Your task to perform on an android device: turn on bluetooth scan Image 0: 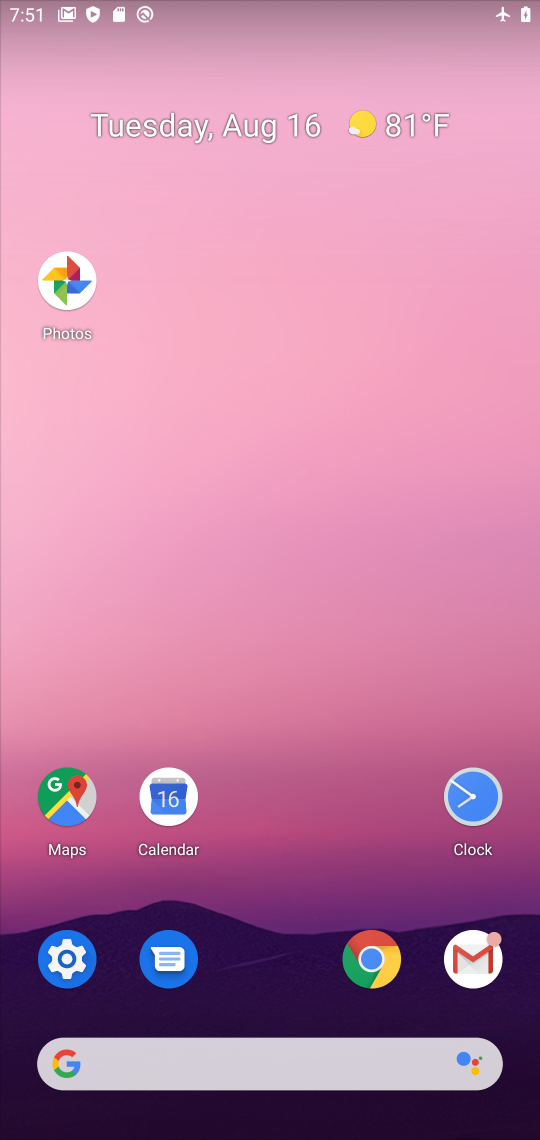
Step 0: click (65, 963)
Your task to perform on an android device: turn on bluetooth scan Image 1: 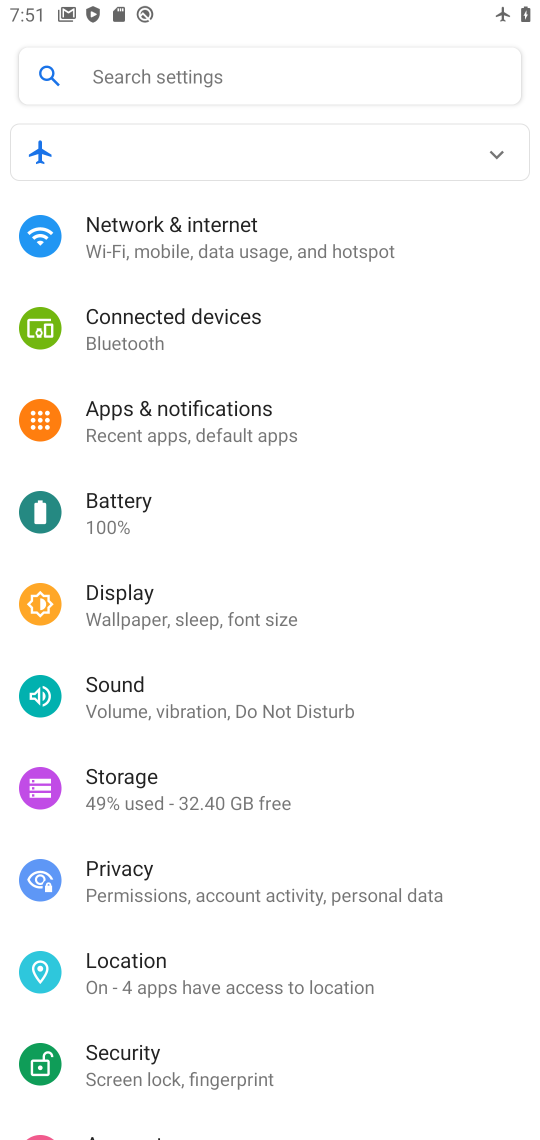
Step 1: click (126, 969)
Your task to perform on an android device: turn on bluetooth scan Image 2: 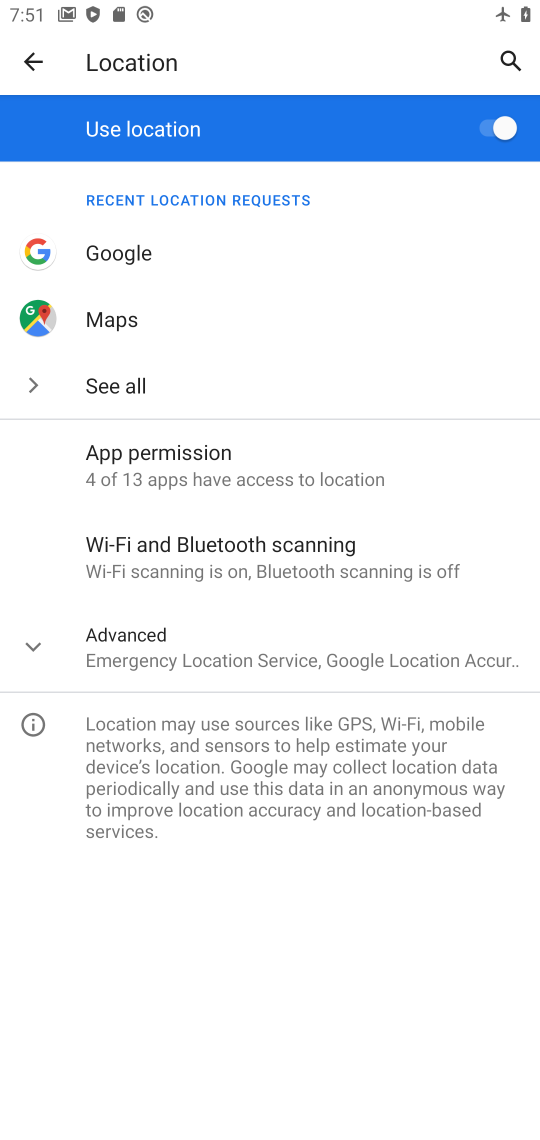
Step 2: click (183, 534)
Your task to perform on an android device: turn on bluetooth scan Image 3: 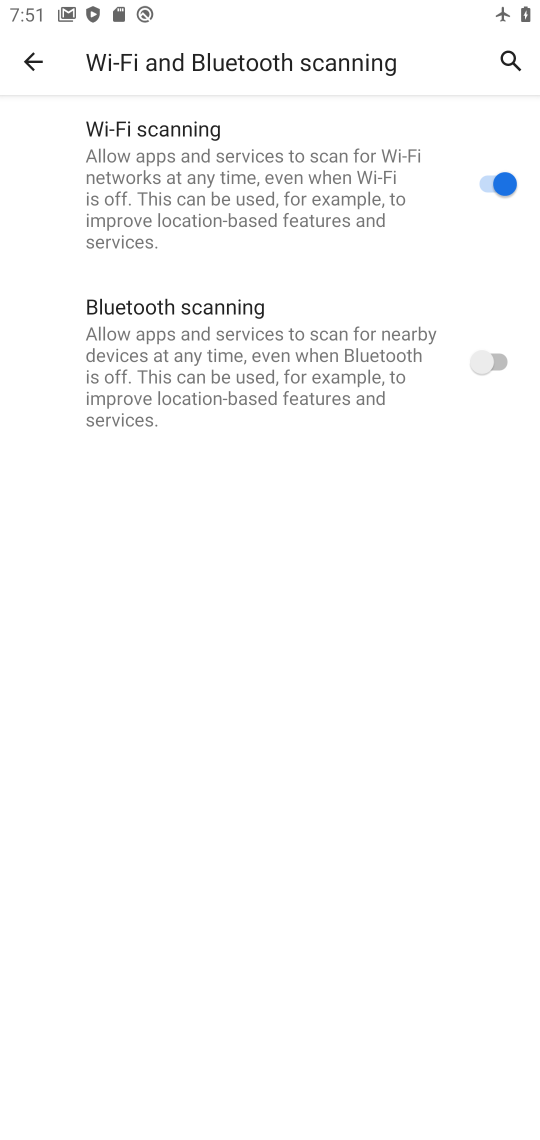
Step 3: click (483, 361)
Your task to perform on an android device: turn on bluetooth scan Image 4: 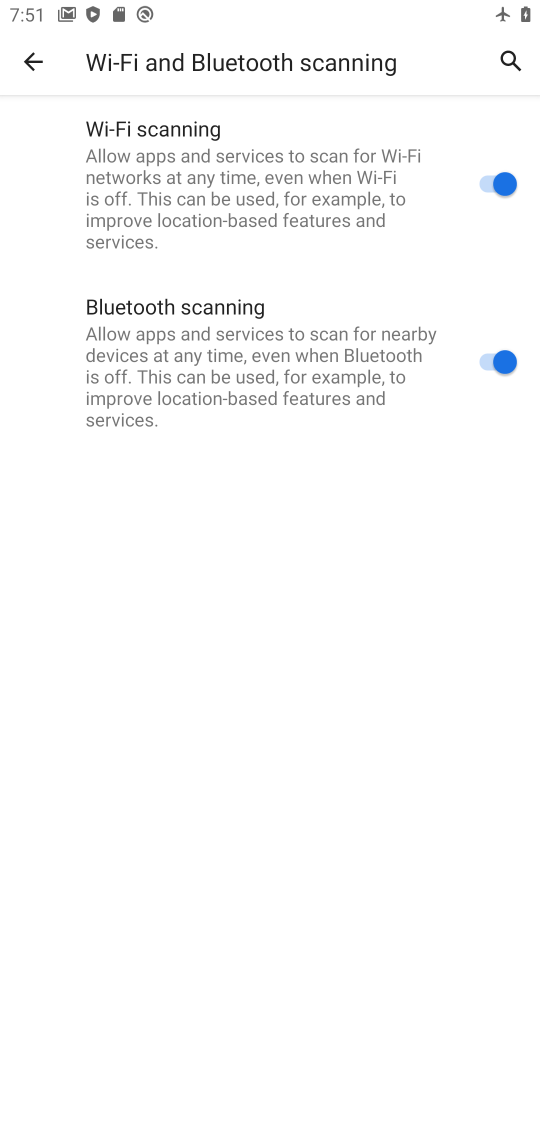
Step 4: task complete